Your task to perform on an android device: empty trash in google photos Image 0: 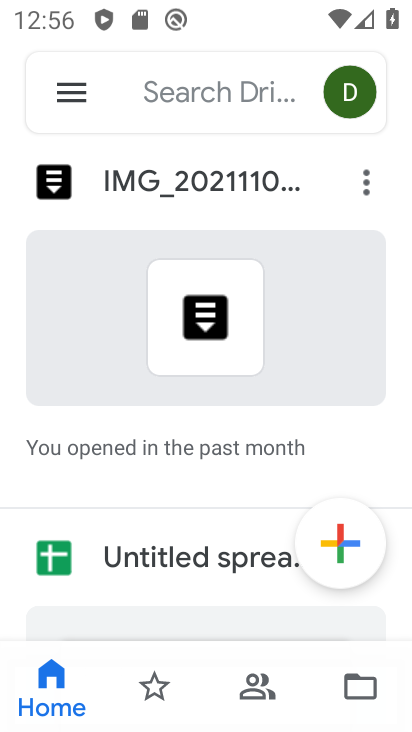
Step 0: press home button
Your task to perform on an android device: empty trash in google photos Image 1: 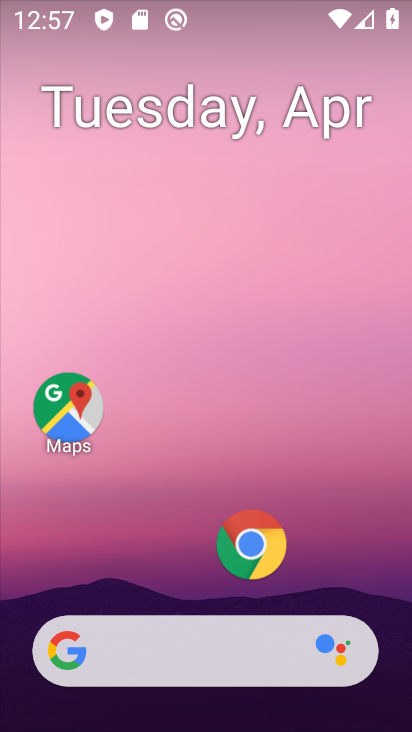
Step 1: click (152, 583)
Your task to perform on an android device: empty trash in google photos Image 2: 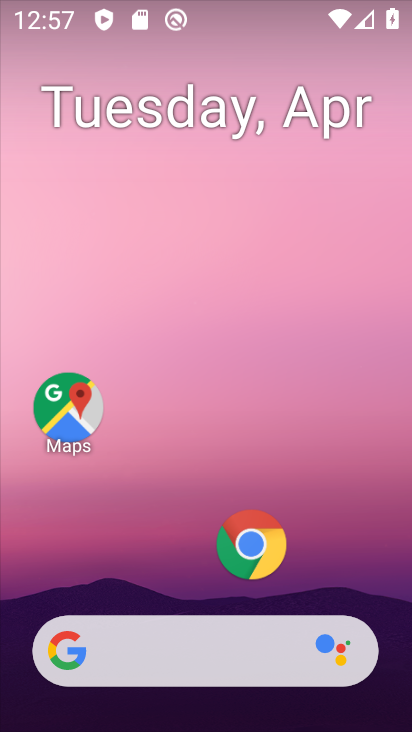
Step 2: drag from (152, 578) to (201, 179)
Your task to perform on an android device: empty trash in google photos Image 3: 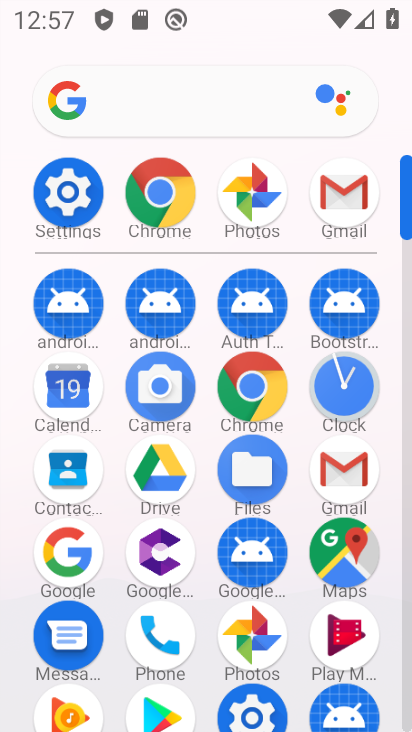
Step 3: click (238, 625)
Your task to perform on an android device: empty trash in google photos Image 4: 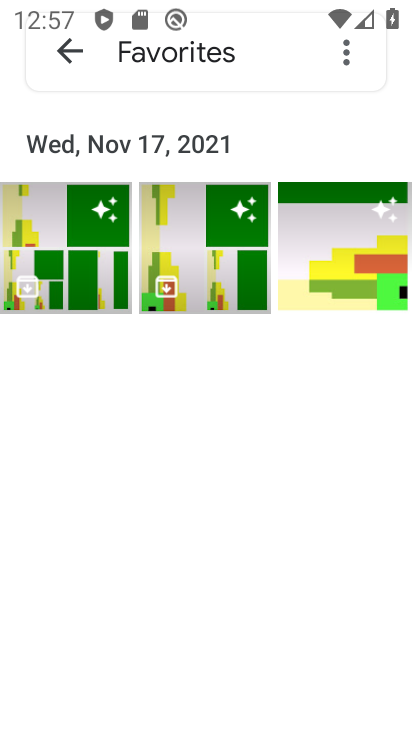
Step 4: click (67, 41)
Your task to perform on an android device: empty trash in google photos Image 5: 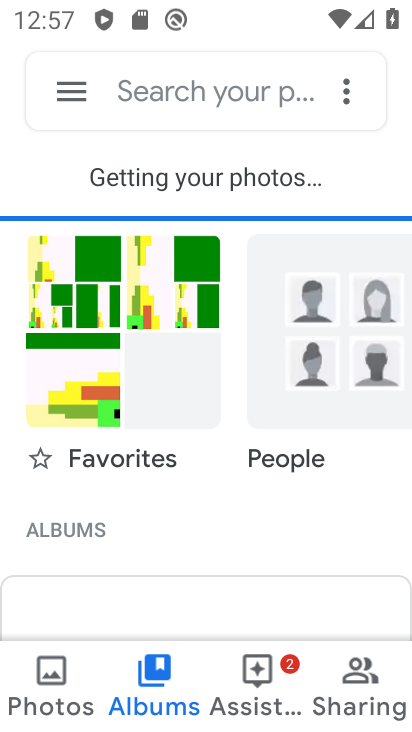
Step 5: click (65, 88)
Your task to perform on an android device: empty trash in google photos Image 6: 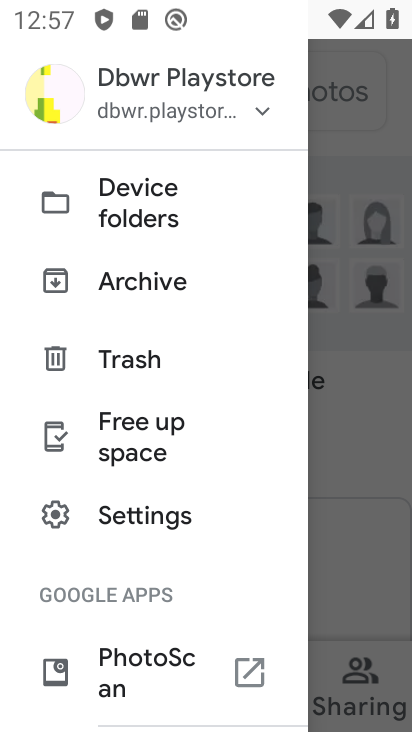
Step 6: click (112, 368)
Your task to perform on an android device: empty trash in google photos Image 7: 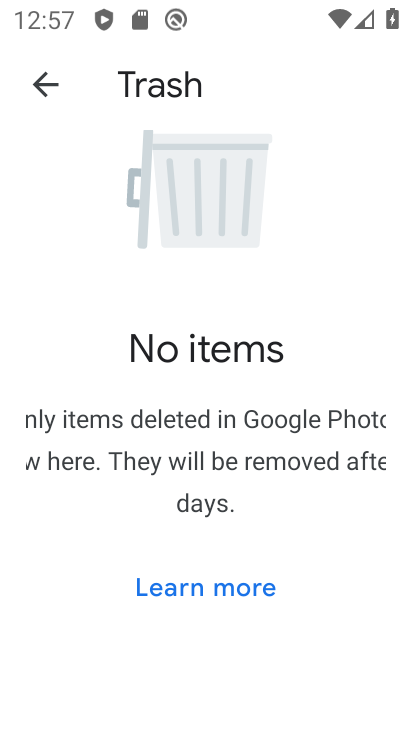
Step 7: task complete